Your task to perform on an android device: Go to Google maps Image 0: 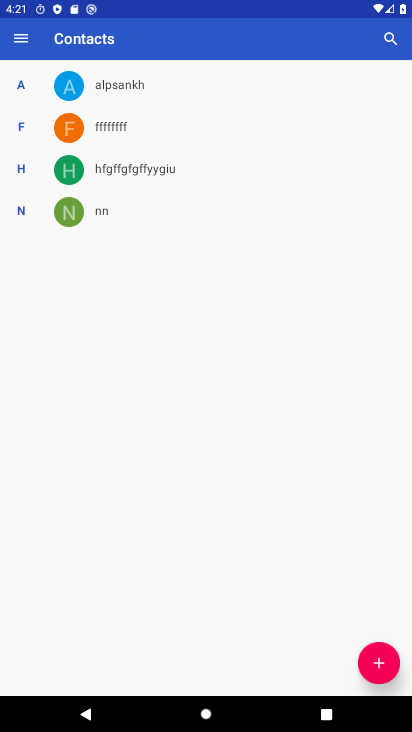
Step 0: press home button
Your task to perform on an android device: Go to Google maps Image 1: 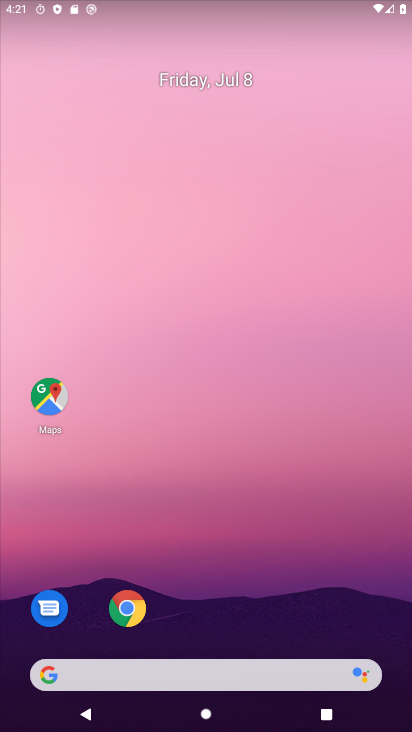
Step 1: click (46, 391)
Your task to perform on an android device: Go to Google maps Image 2: 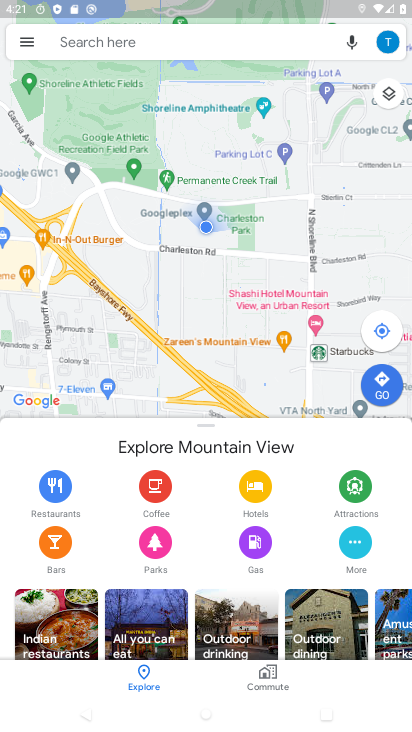
Step 2: task complete